Your task to perform on an android device: move a message to another label in the gmail app Image 0: 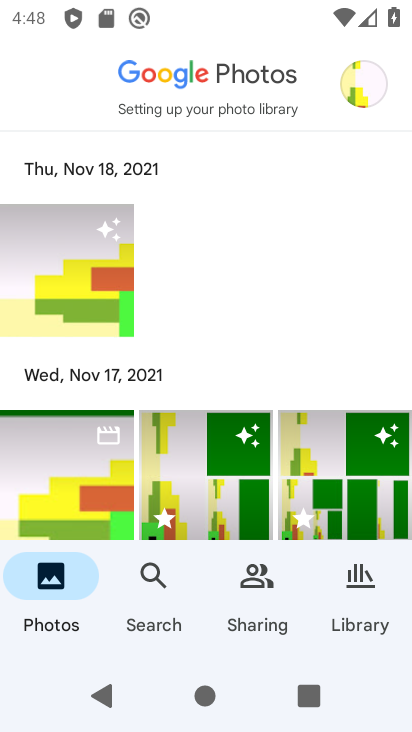
Step 0: press home button
Your task to perform on an android device: move a message to another label in the gmail app Image 1: 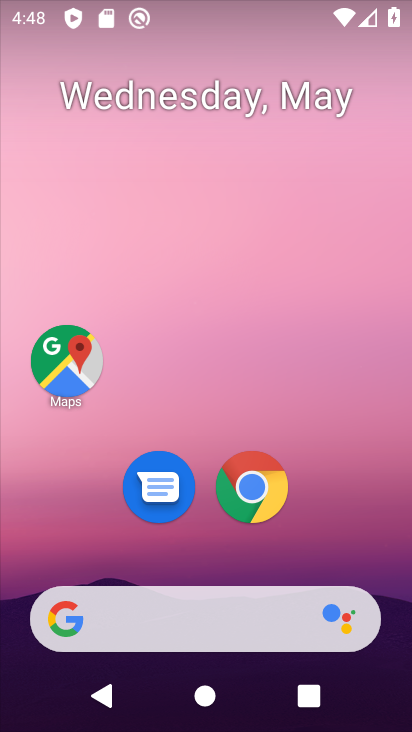
Step 1: drag from (389, 500) to (363, 127)
Your task to perform on an android device: move a message to another label in the gmail app Image 2: 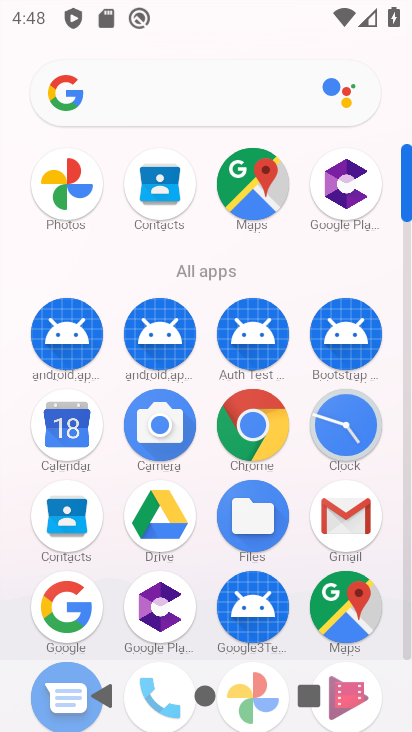
Step 2: click (365, 514)
Your task to perform on an android device: move a message to another label in the gmail app Image 3: 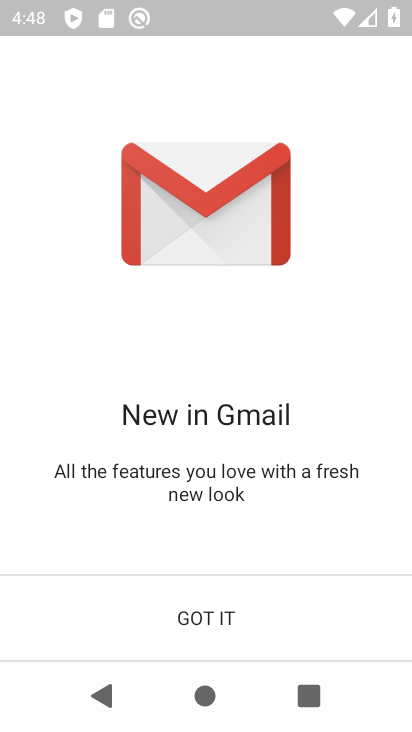
Step 3: click (253, 599)
Your task to perform on an android device: move a message to another label in the gmail app Image 4: 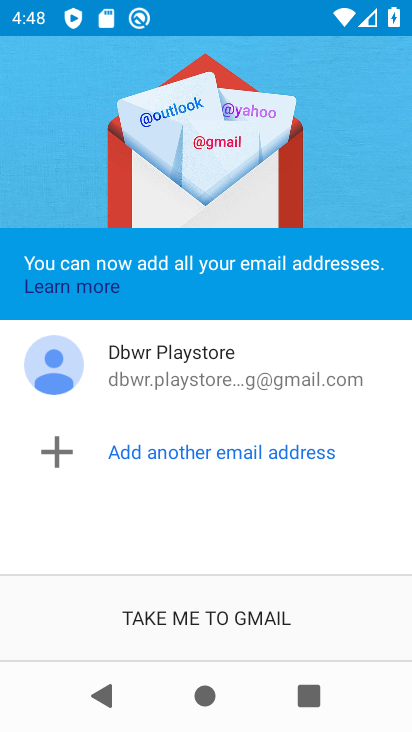
Step 4: click (211, 599)
Your task to perform on an android device: move a message to another label in the gmail app Image 5: 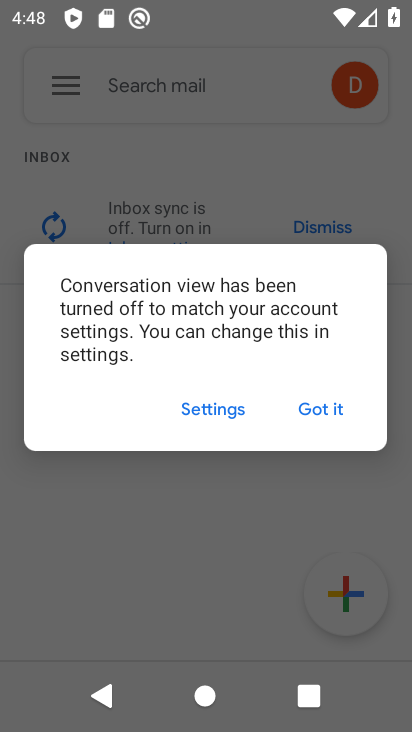
Step 5: click (334, 408)
Your task to perform on an android device: move a message to another label in the gmail app Image 6: 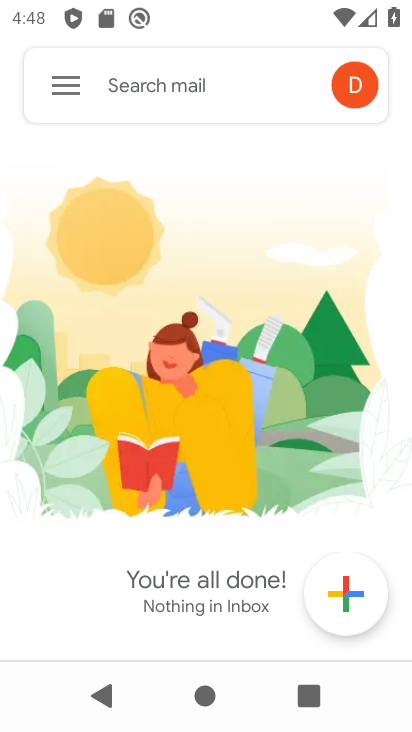
Step 6: task complete